Your task to perform on an android device: Go to Google maps Image 0: 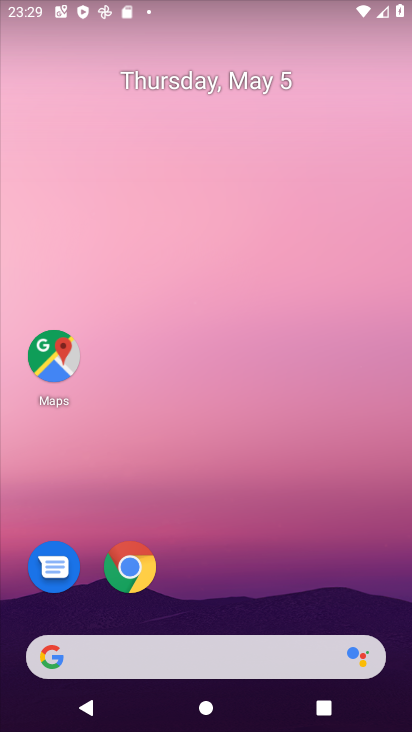
Step 0: click (55, 356)
Your task to perform on an android device: Go to Google maps Image 1: 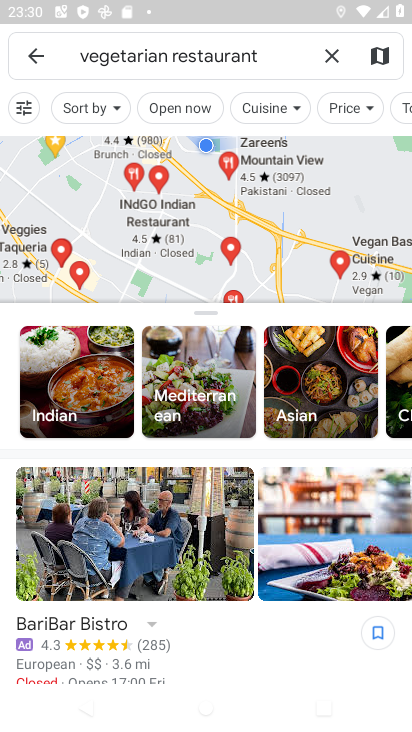
Step 1: task complete